Your task to perform on an android device: toggle location history Image 0: 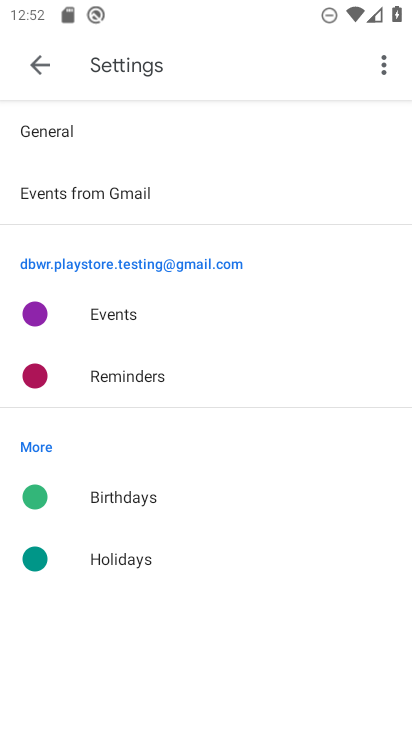
Step 0: press home button
Your task to perform on an android device: toggle location history Image 1: 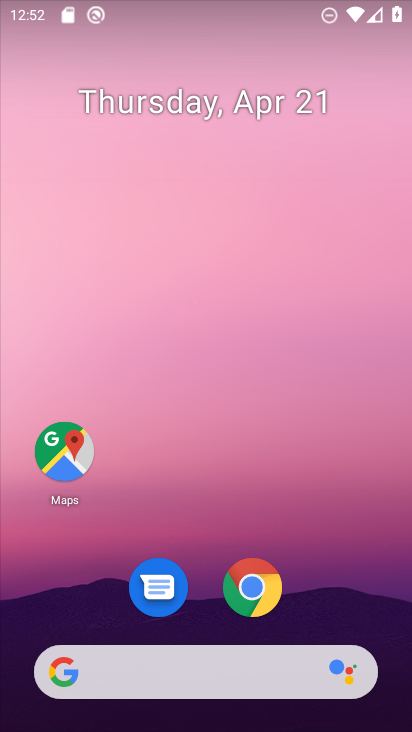
Step 1: drag from (311, 567) to (311, 0)
Your task to perform on an android device: toggle location history Image 2: 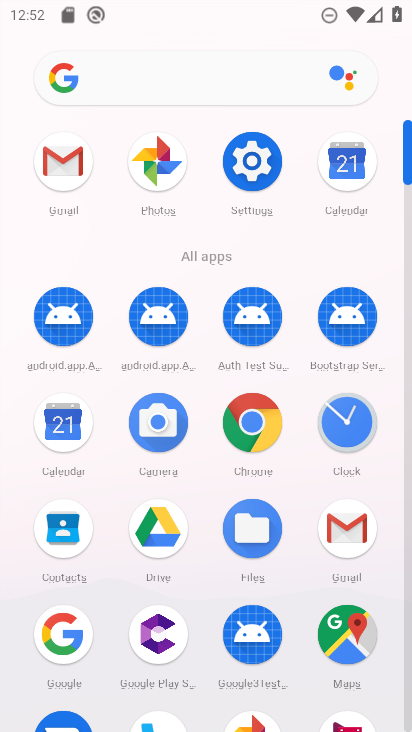
Step 2: click (336, 635)
Your task to perform on an android device: toggle location history Image 3: 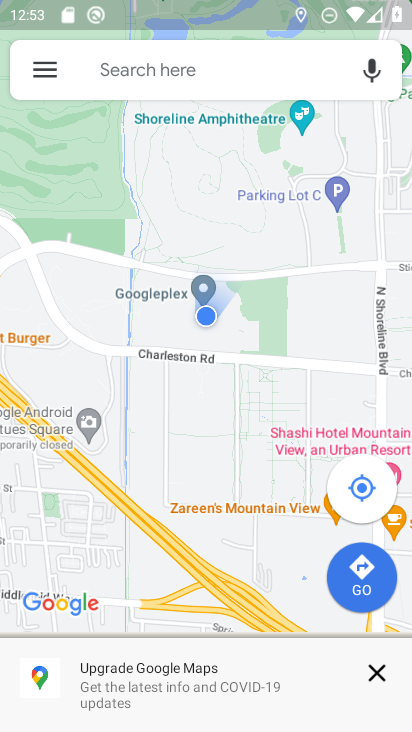
Step 3: click (54, 74)
Your task to perform on an android device: toggle location history Image 4: 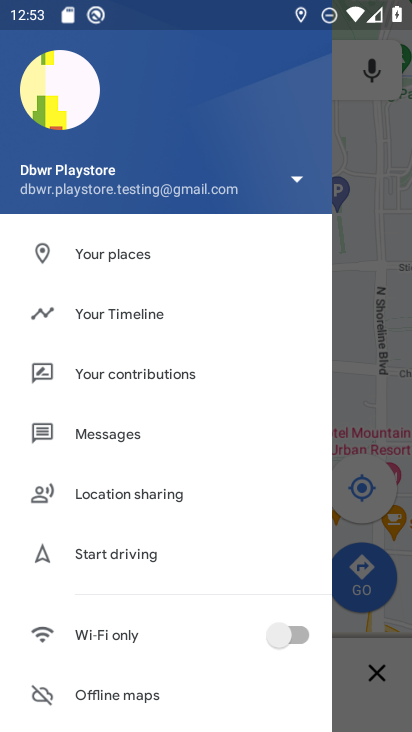
Step 4: click (110, 305)
Your task to perform on an android device: toggle location history Image 5: 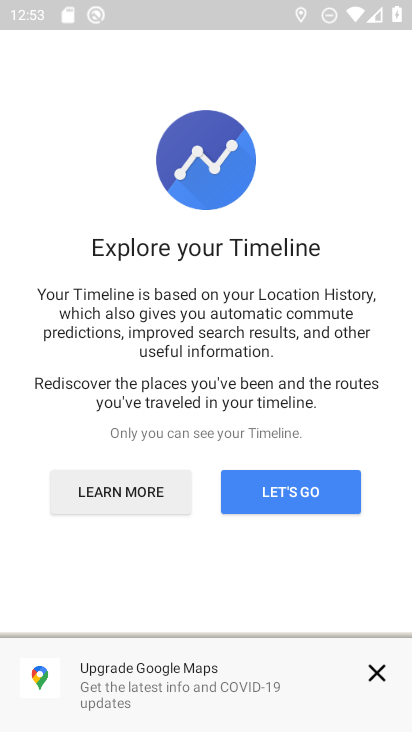
Step 5: click (379, 671)
Your task to perform on an android device: toggle location history Image 6: 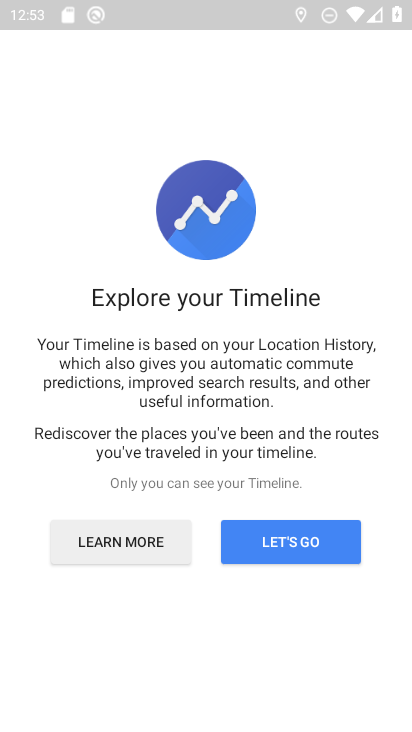
Step 6: click (268, 541)
Your task to perform on an android device: toggle location history Image 7: 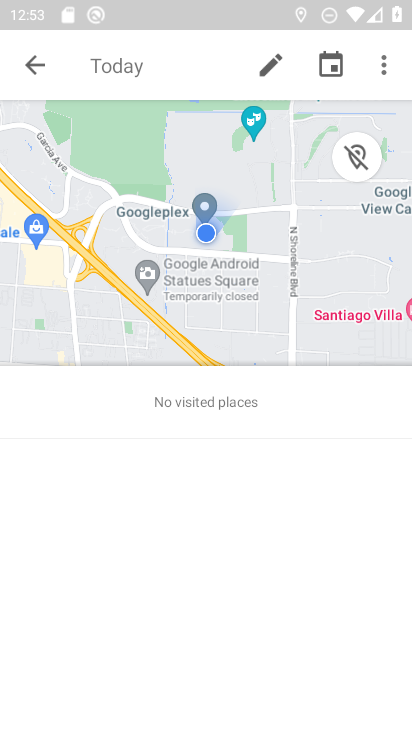
Step 7: click (385, 69)
Your task to perform on an android device: toggle location history Image 8: 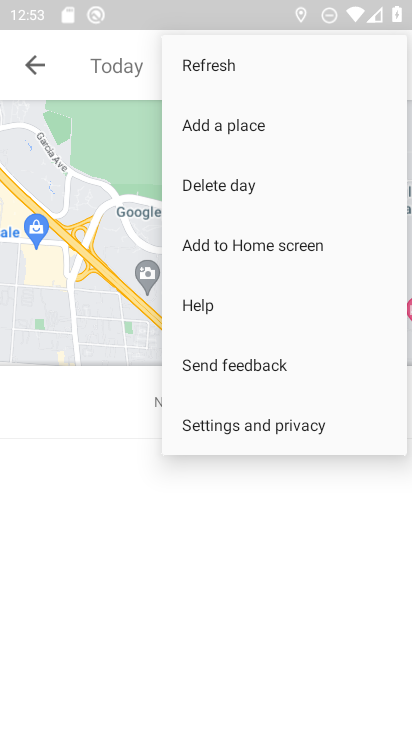
Step 8: click (255, 427)
Your task to perform on an android device: toggle location history Image 9: 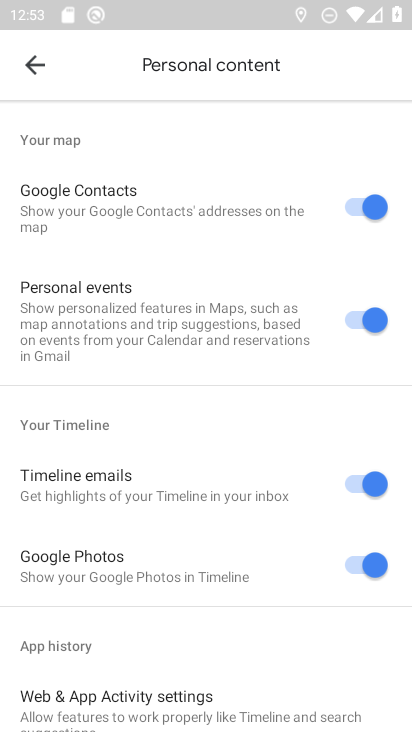
Step 9: drag from (162, 587) to (145, 280)
Your task to perform on an android device: toggle location history Image 10: 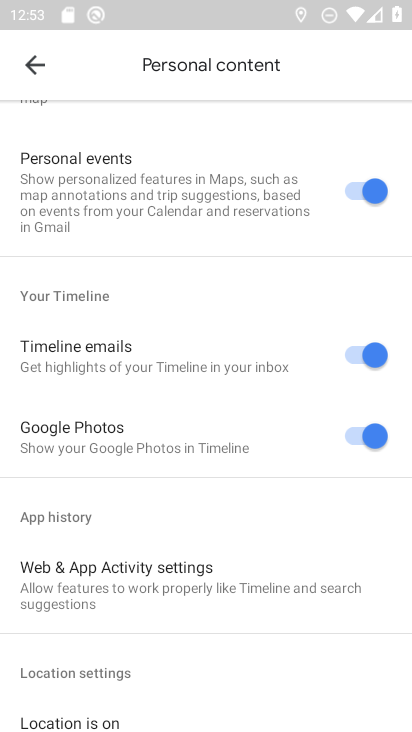
Step 10: drag from (194, 471) to (188, 238)
Your task to perform on an android device: toggle location history Image 11: 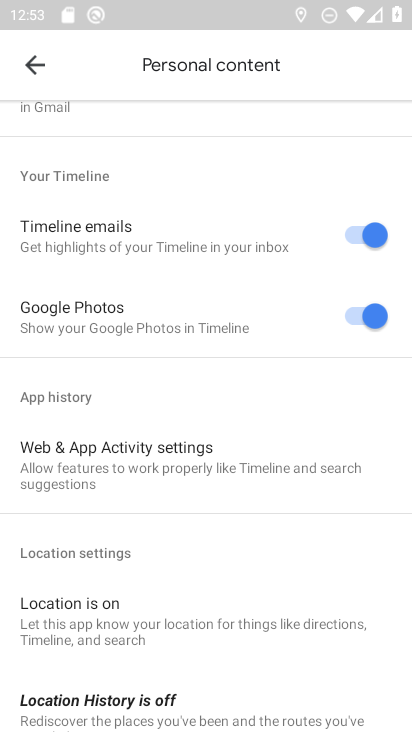
Step 11: drag from (187, 610) to (170, 307)
Your task to perform on an android device: toggle location history Image 12: 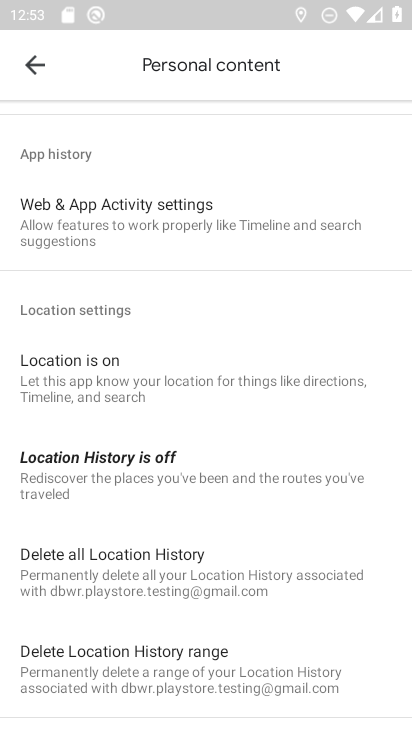
Step 12: click (104, 461)
Your task to perform on an android device: toggle location history Image 13: 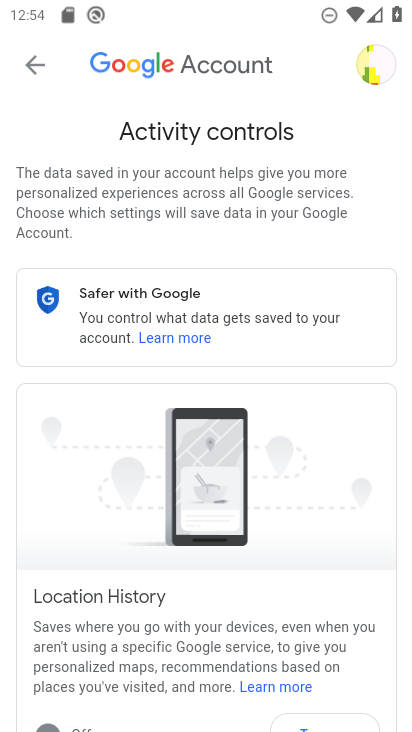
Step 13: drag from (307, 529) to (308, 234)
Your task to perform on an android device: toggle location history Image 14: 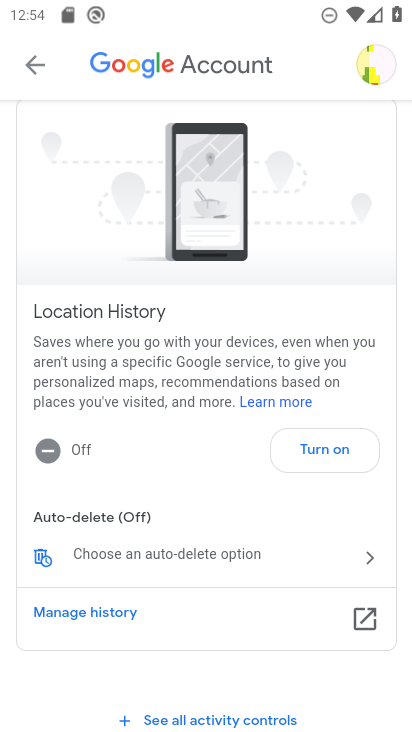
Step 14: click (306, 457)
Your task to perform on an android device: toggle location history Image 15: 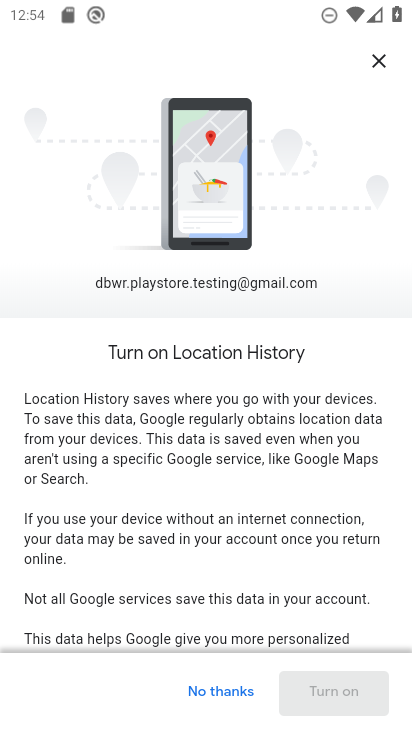
Step 15: drag from (273, 547) to (251, 246)
Your task to perform on an android device: toggle location history Image 16: 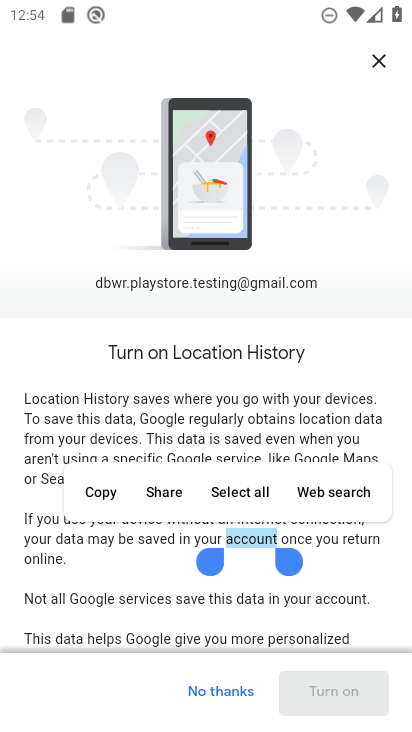
Step 16: drag from (266, 558) to (260, 341)
Your task to perform on an android device: toggle location history Image 17: 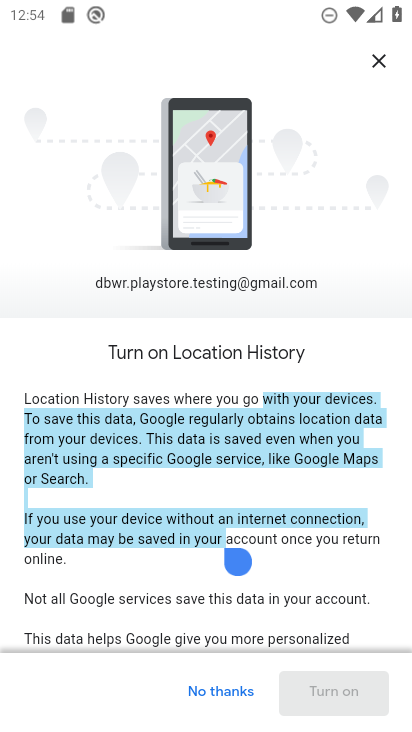
Step 17: click (327, 610)
Your task to perform on an android device: toggle location history Image 18: 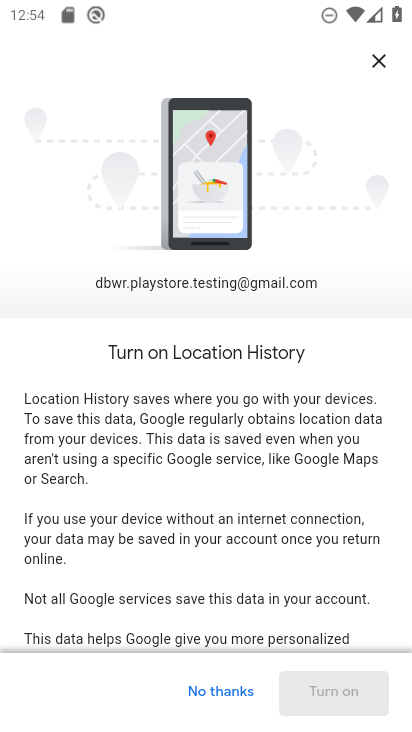
Step 18: click (374, 581)
Your task to perform on an android device: toggle location history Image 19: 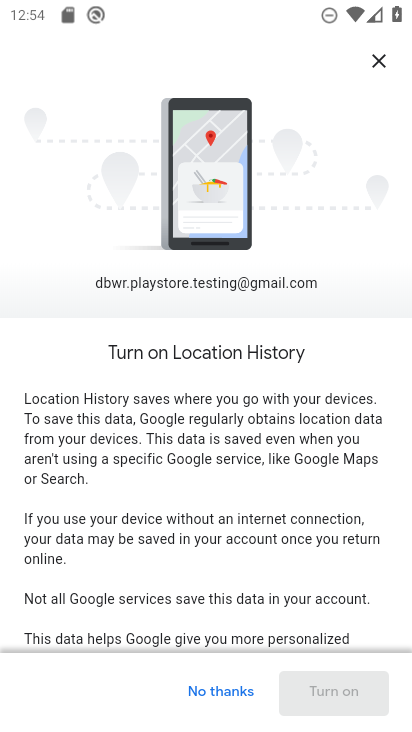
Step 19: drag from (207, 591) to (214, 399)
Your task to perform on an android device: toggle location history Image 20: 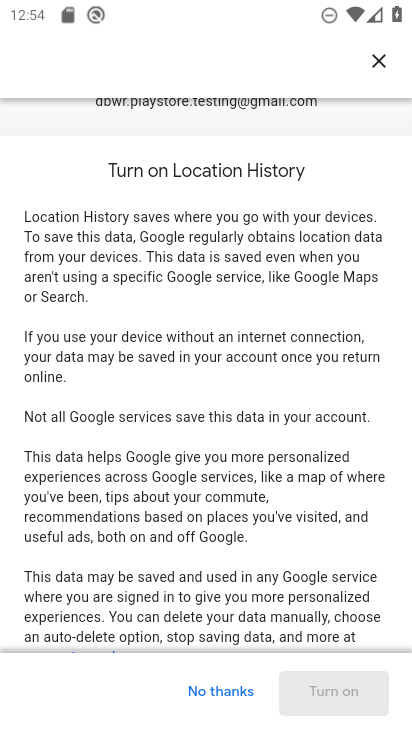
Step 20: drag from (252, 575) to (223, 232)
Your task to perform on an android device: toggle location history Image 21: 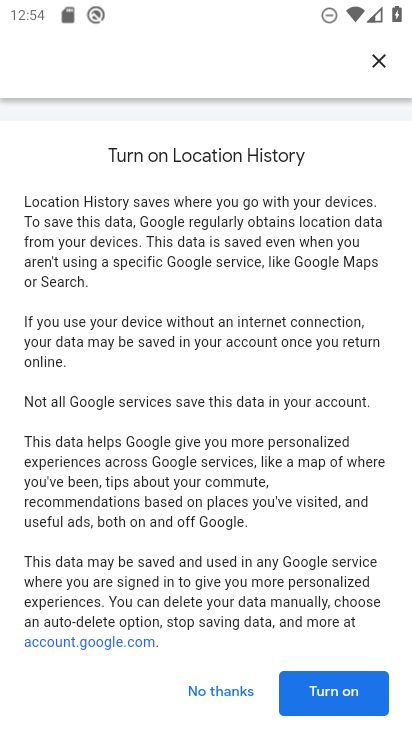
Step 21: click (322, 699)
Your task to perform on an android device: toggle location history Image 22: 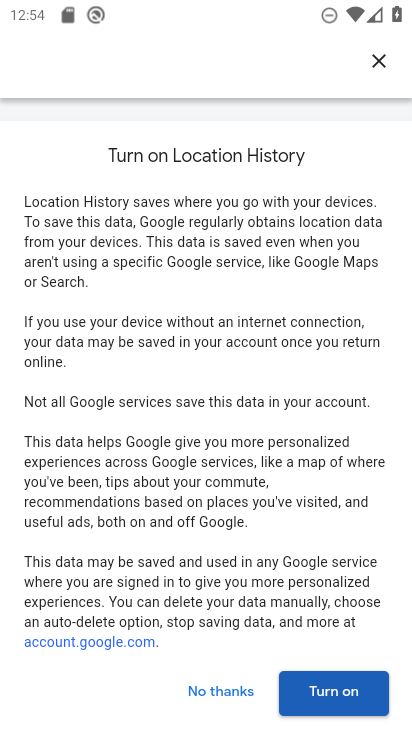
Step 22: click (344, 710)
Your task to perform on an android device: toggle location history Image 23: 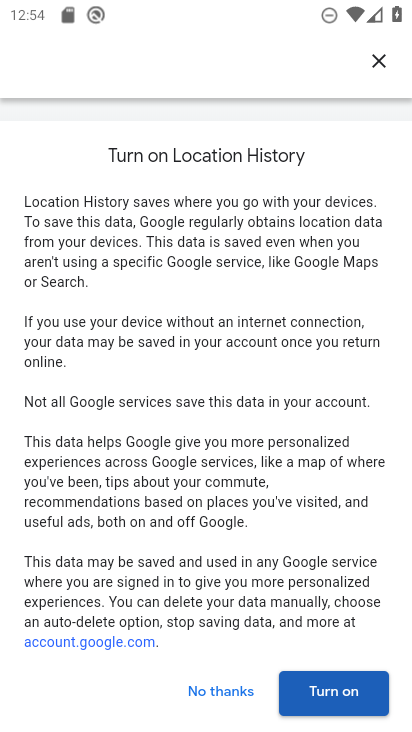
Step 23: click (321, 702)
Your task to perform on an android device: toggle location history Image 24: 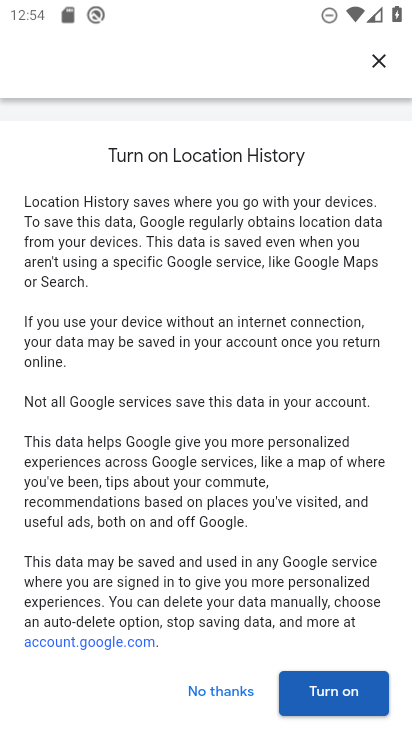
Step 24: click (321, 702)
Your task to perform on an android device: toggle location history Image 25: 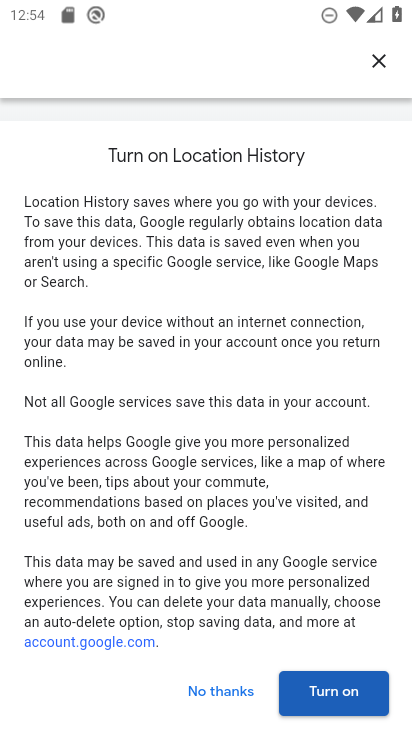
Step 25: drag from (234, 549) to (185, 272)
Your task to perform on an android device: toggle location history Image 26: 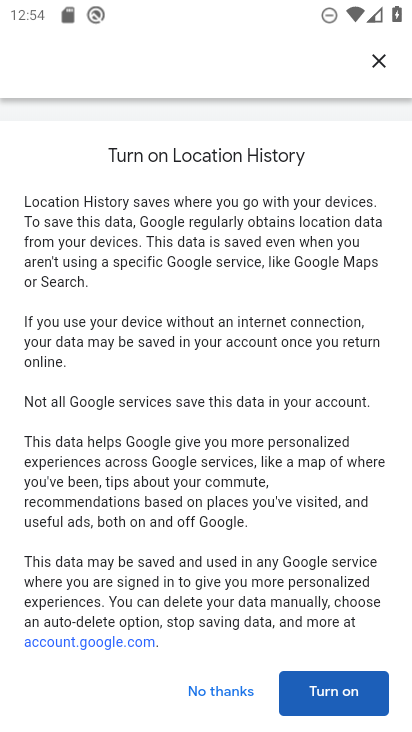
Step 26: click (333, 699)
Your task to perform on an android device: toggle location history Image 27: 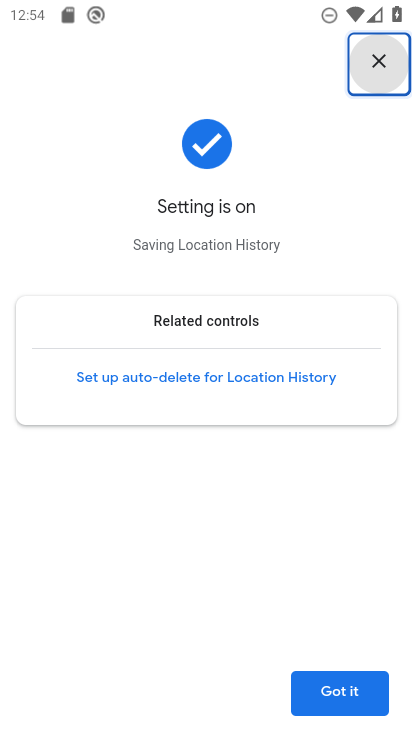
Step 27: click (343, 696)
Your task to perform on an android device: toggle location history Image 28: 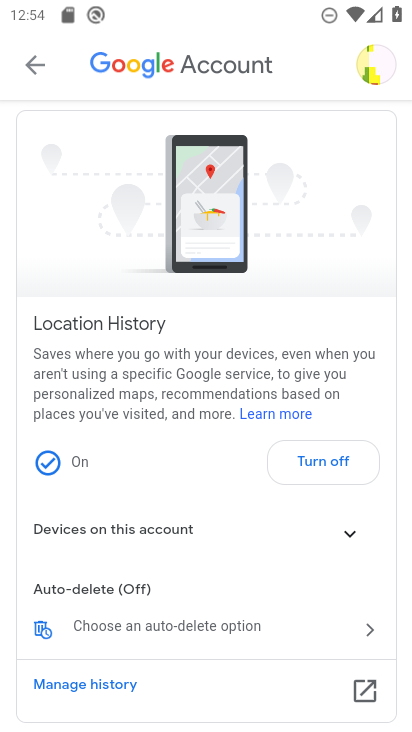
Step 28: task complete